Your task to perform on an android device: Open Google Image 0: 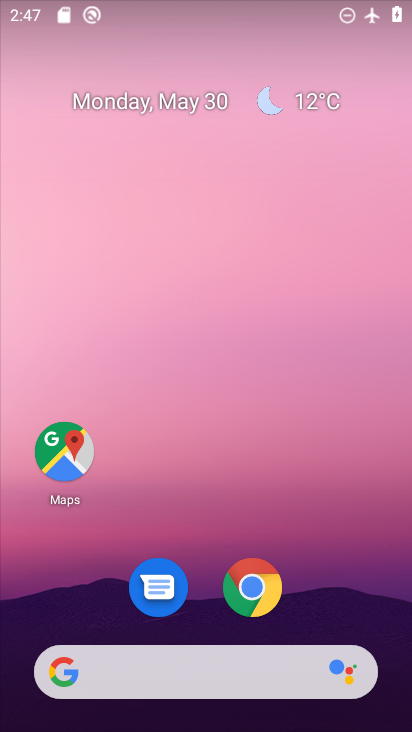
Step 0: drag from (79, 548) to (79, 260)
Your task to perform on an android device: Open Google Image 1: 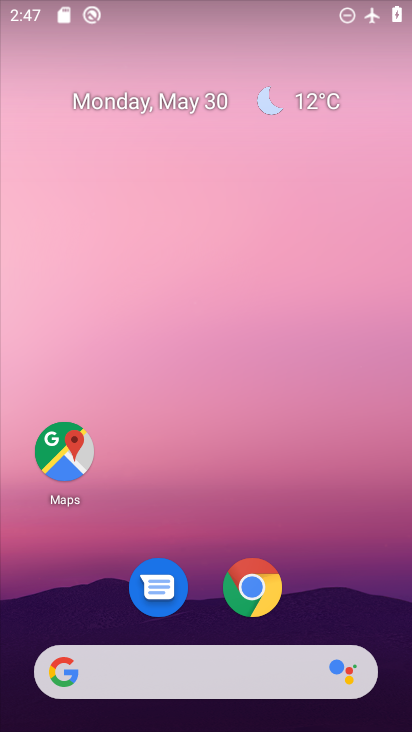
Step 1: drag from (98, 597) to (154, 139)
Your task to perform on an android device: Open Google Image 2: 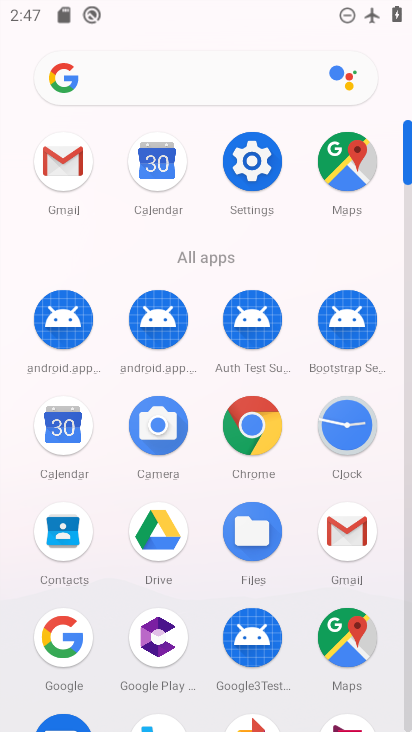
Step 2: click (55, 649)
Your task to perform on an android device: Open Google Image 3: 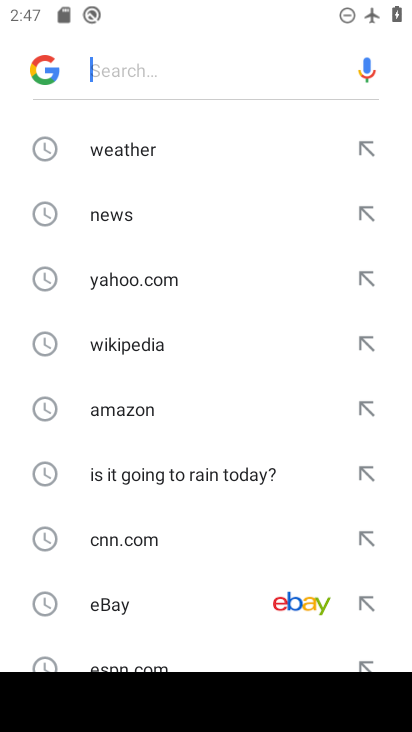
Step 3: task complete